Your task to perform on an android device: Go to Yahoo.com Image 0: 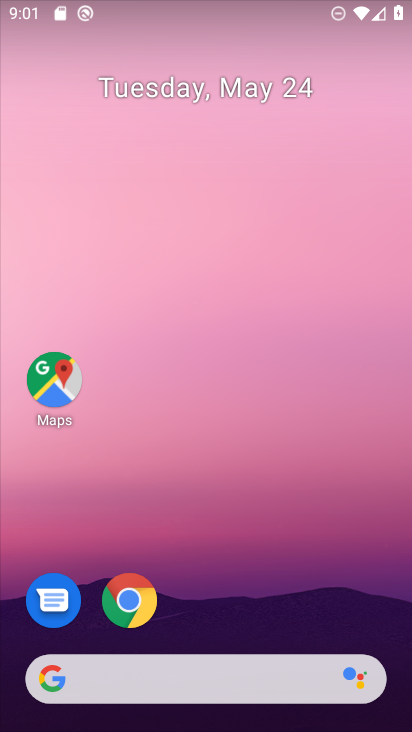
Step 0: click (117, 606)
Your task to perform on an android device: Go to Yahoo.com Image 1: 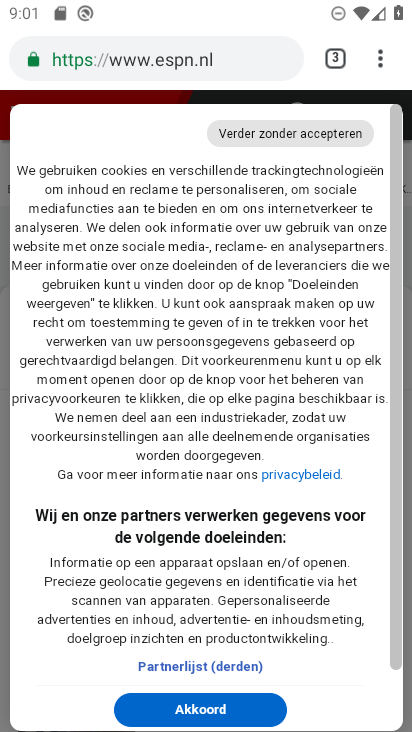
Step 1: click (333, 50)
Your task to perform on an android device: Go to Yahoo.com Image 2: 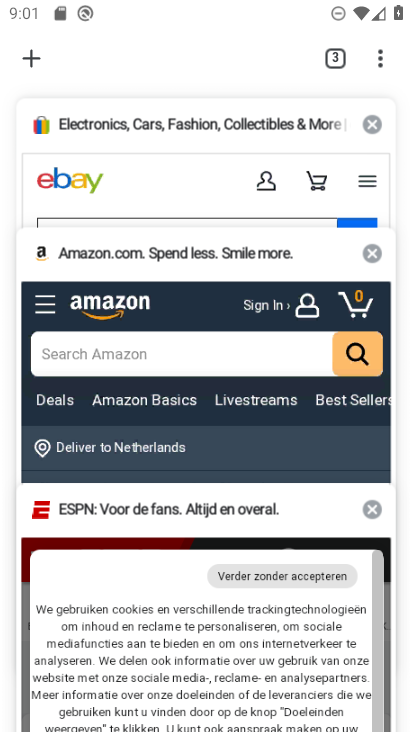
Step 2: click (24, 57)
Your task to perform on an android device: Go to Yahoo.com Image 3: 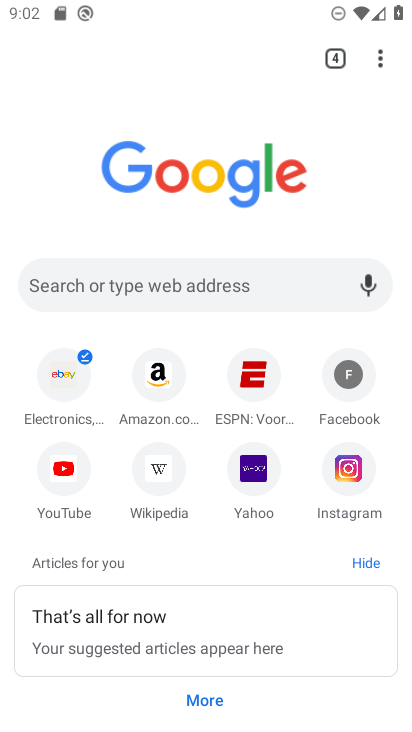
Step 3: click (269, 472)
Your task to perform on an android device: Go to Yahoo.com Image 4: 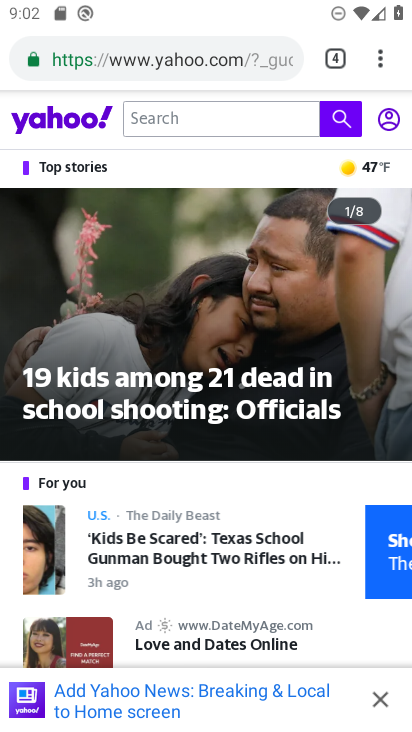
Step 4: task complete